Your task to perform on an android device: change alarm snooze length Image 0: 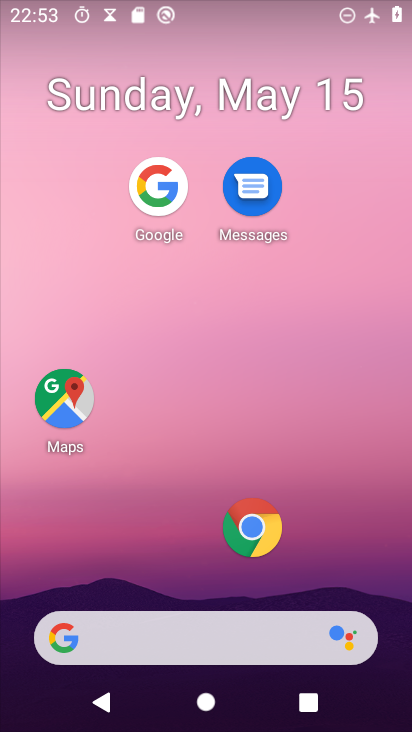
Step 0: press home button
Your task to perform on an android device: change alarm snooze length Image 1: 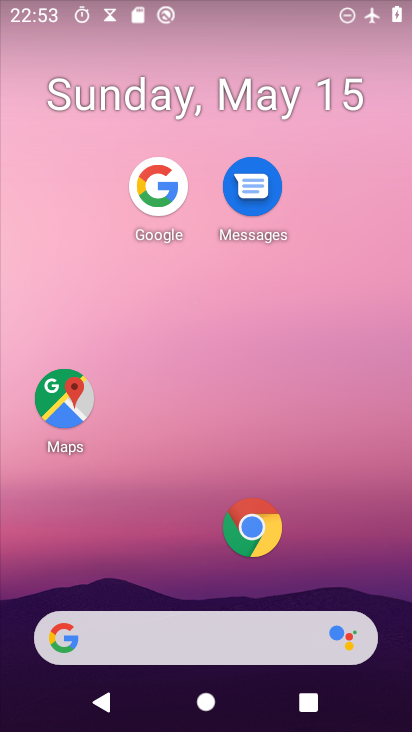
Step 1: drag from (213, 608) to (319, 245)
Your task to perform on an android device: change alarm snooze length Image 2: 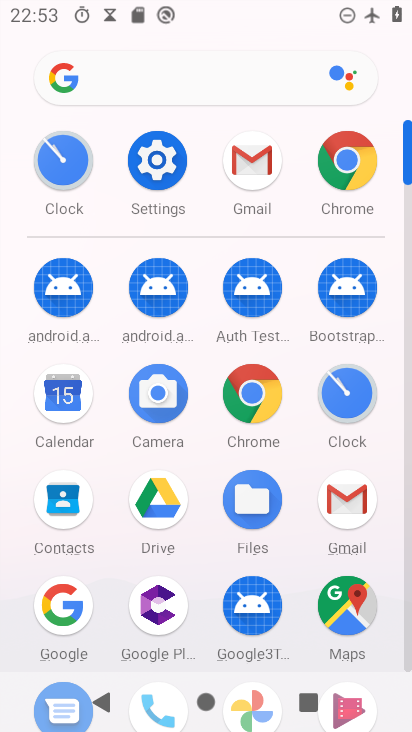
Step 2: click (333, 403)
Your task to perform on an android device: change alarm snooze length Image 3: 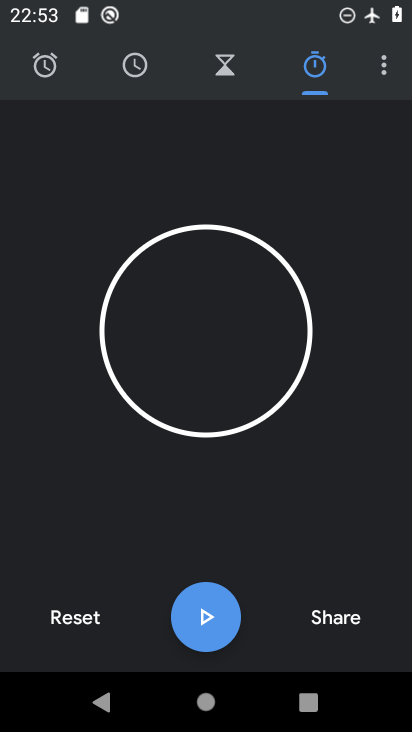
Step 3: click (386, 65)
Your task to perform on an android device: change alarm snooze length Image 4: 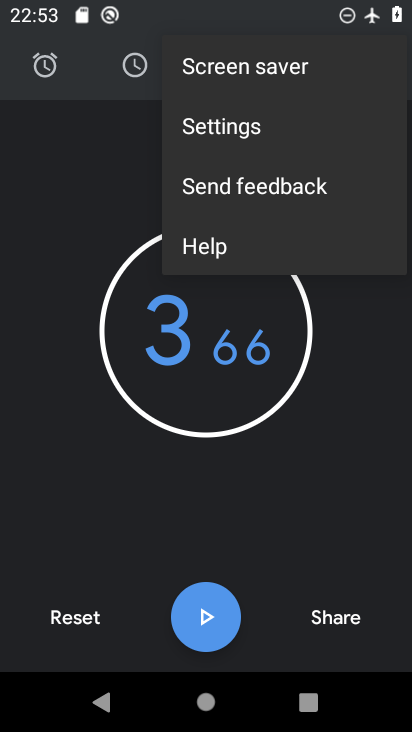
Step 4: click (229, 129)
Your task to perform on an android device: change alarm snooze length Image 5: 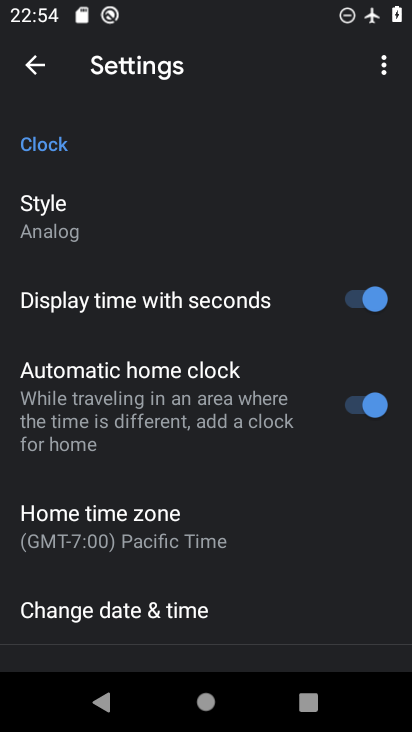
Step 5: drag from (139, 551) to (298, 116)
Your task to perform on an android device: change alarm snooze length Image 6: 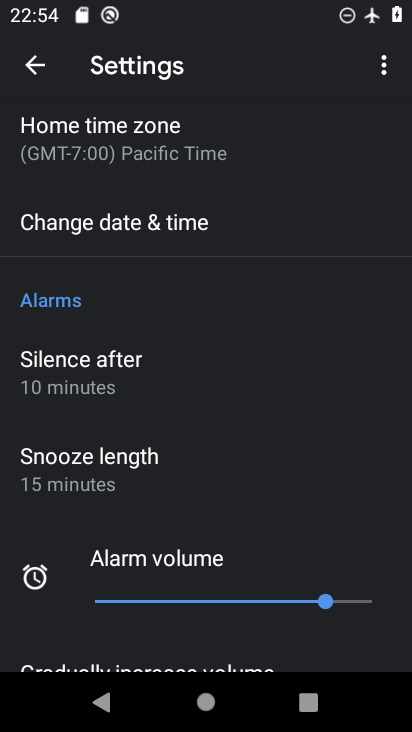
Step 6: click (122, 453)
Your task to perform on an android device: change alarm snooze length Image 7: 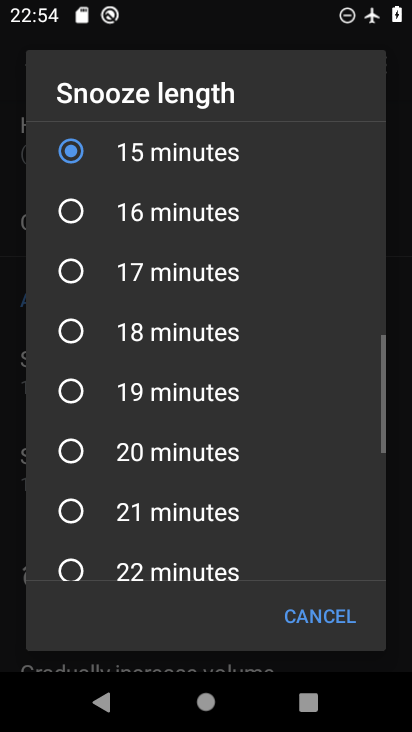
Step 7: drag from (186, 197) to (113, 593)
Your task to perform on an android device: change alarm snooze length Image 8: 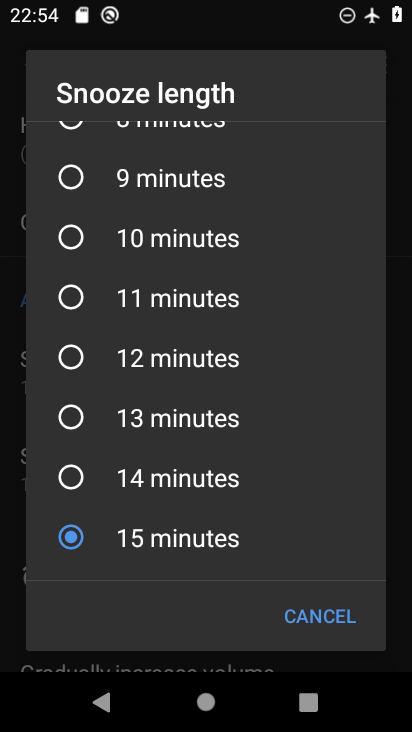
Step 8: click (61, 238)
Your task to perform on an android device: change alarm snooze length Image 9: 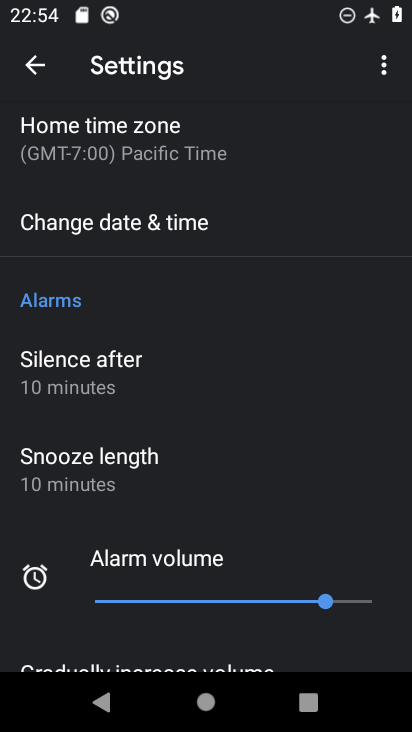
Step 9: task complete